Your task to perform on an android device: open app "Google Play services" (install if not already installed) Image 0: 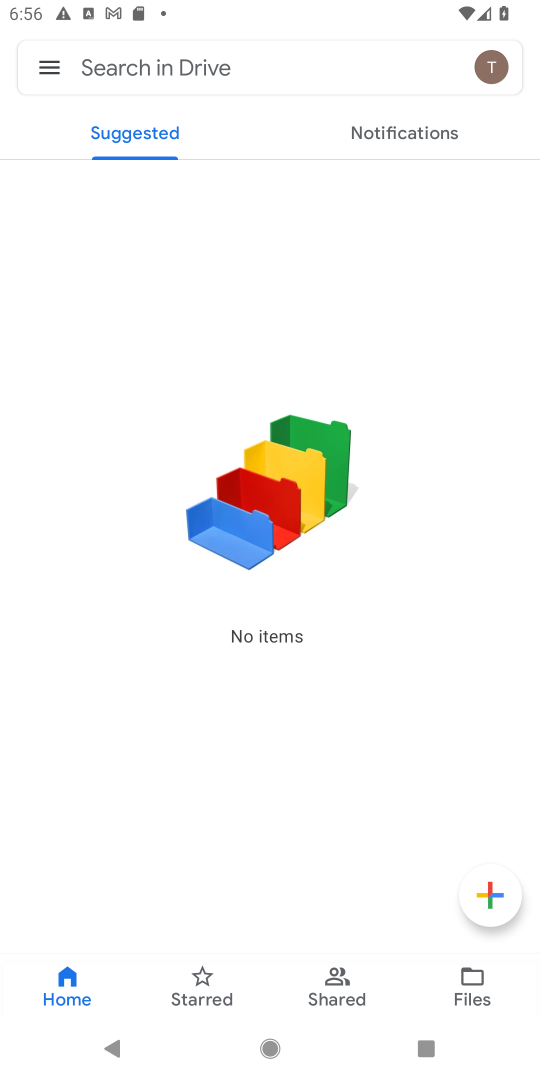
Step 0: press home button
Your task to perform on an android device: open app "Google Play services" (install if not already installed) Image 1: 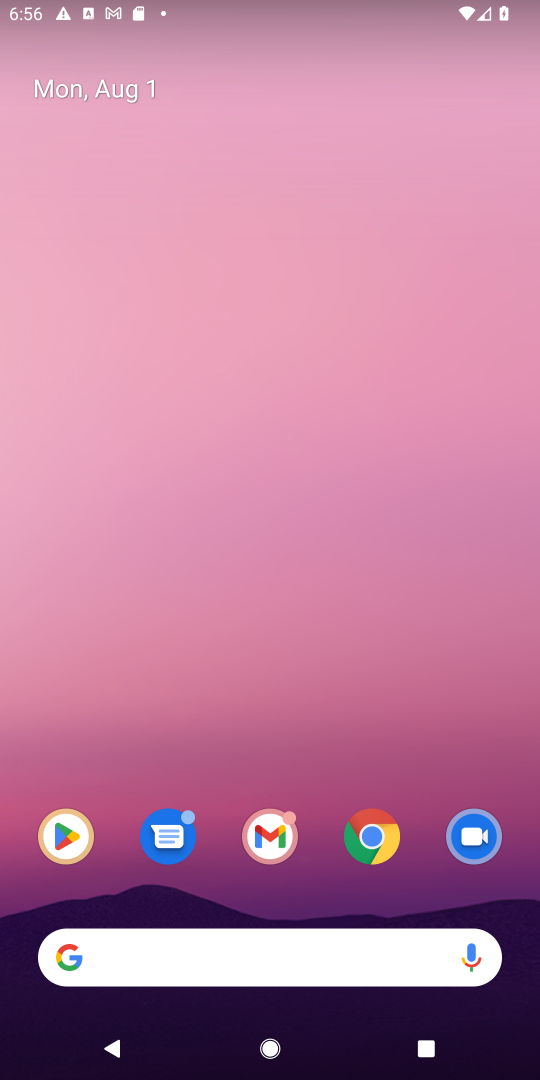
Step 1: click (55, 836)
Your task to perform on an android device: open app "Google Play services" (install if not already installed) Image 2: 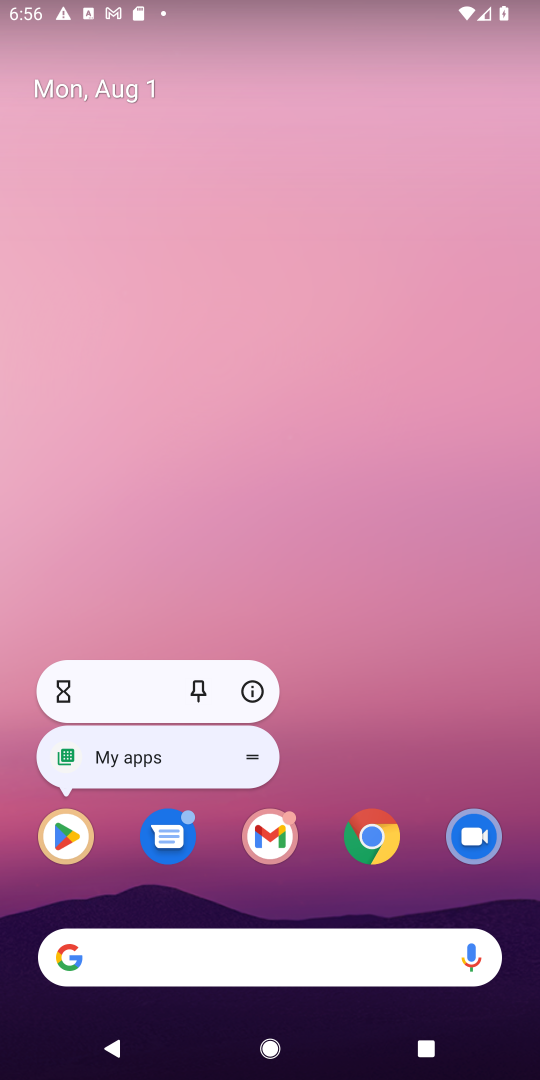
Step 2: click (54, 834)
Your task to perform on an android device: open app "Google Play services" (install if not already installed) Image 3: 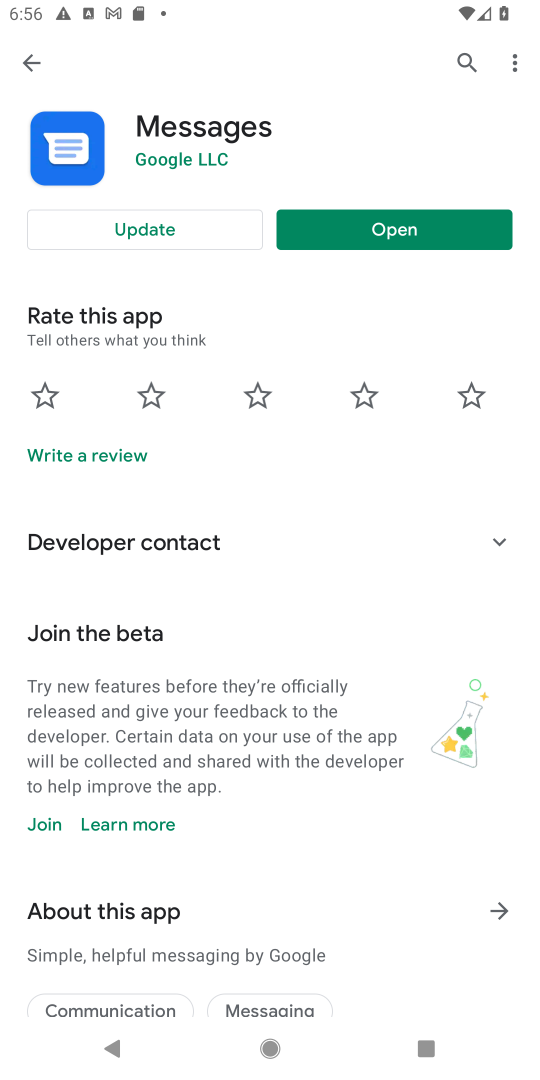
Step 3: click (461, 51)
Your task to perform on an android device: open app "Google Play services" (install if not already installed) Image 4: 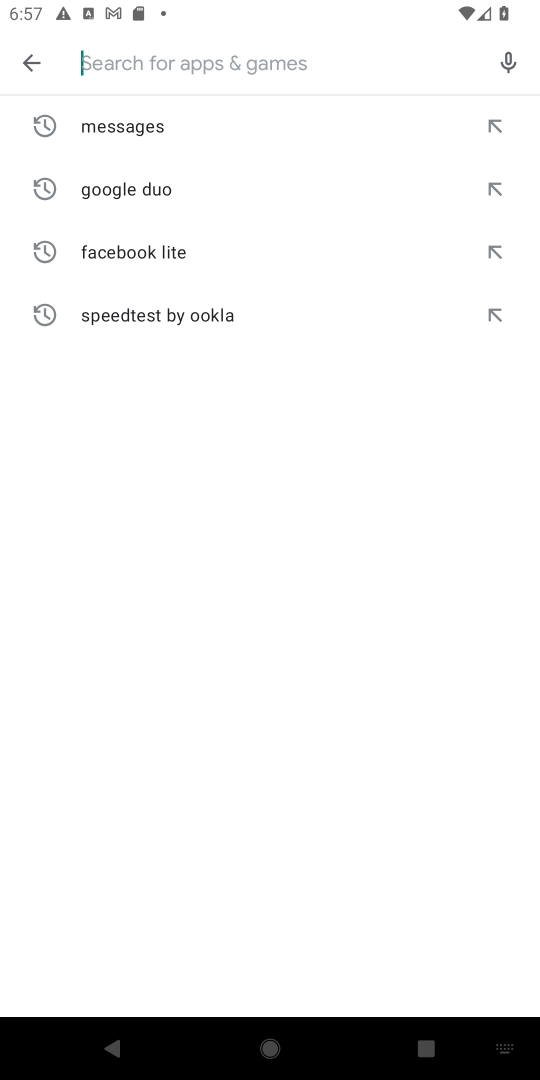
Step 4: type "Google Play services"
Your task to perform on an android device: open app "Google Play services" (install if not already installed) Image 5: 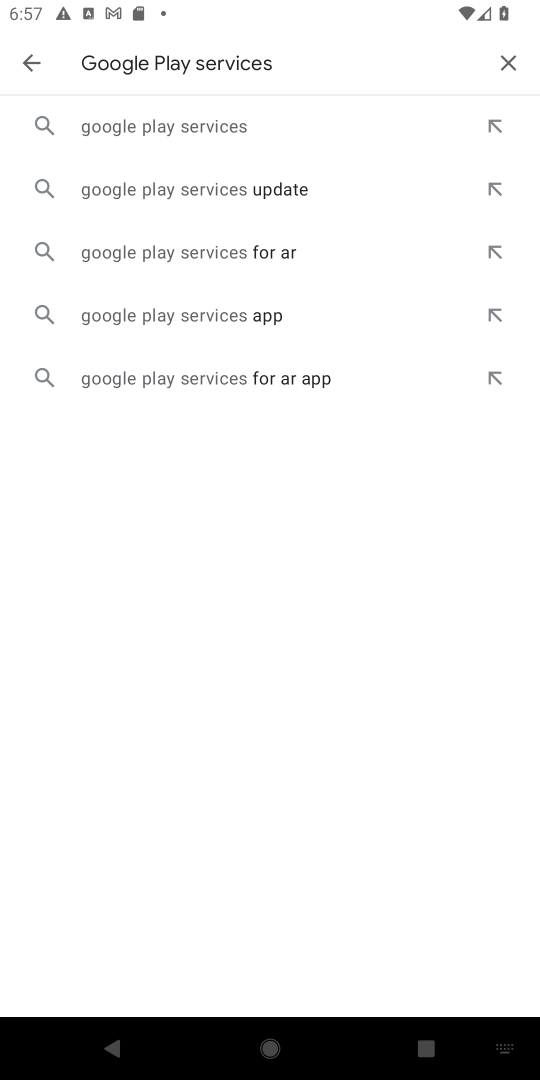
Step 5: click (223, 124)
Your task to perform on an android device: open app "Google Play services" (install if not already installed) Image 6: 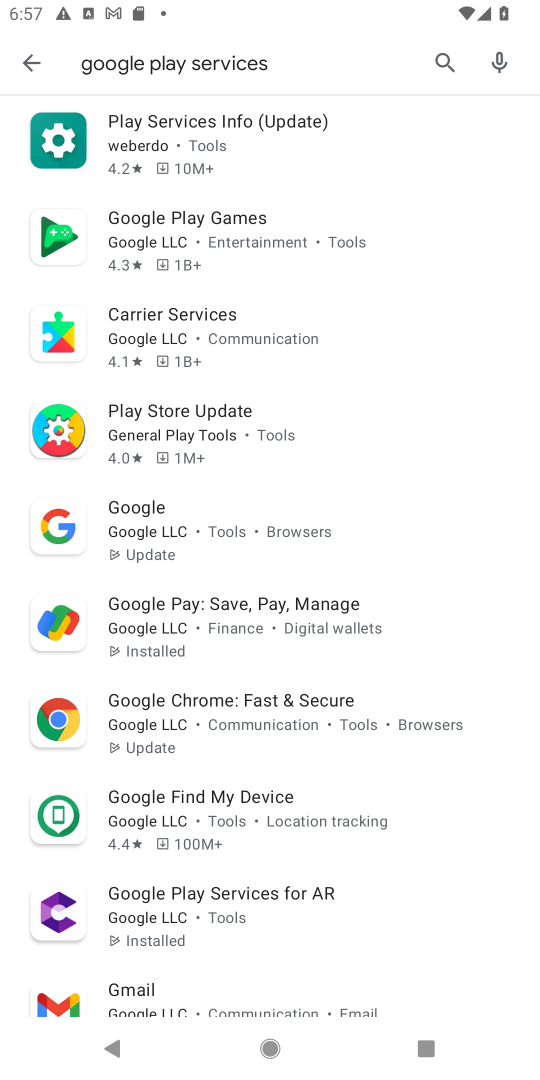
Step 6: click (224, 917)
Your task to perform on an android device: open app "Google Play services" (install if not already installed) Image 7: 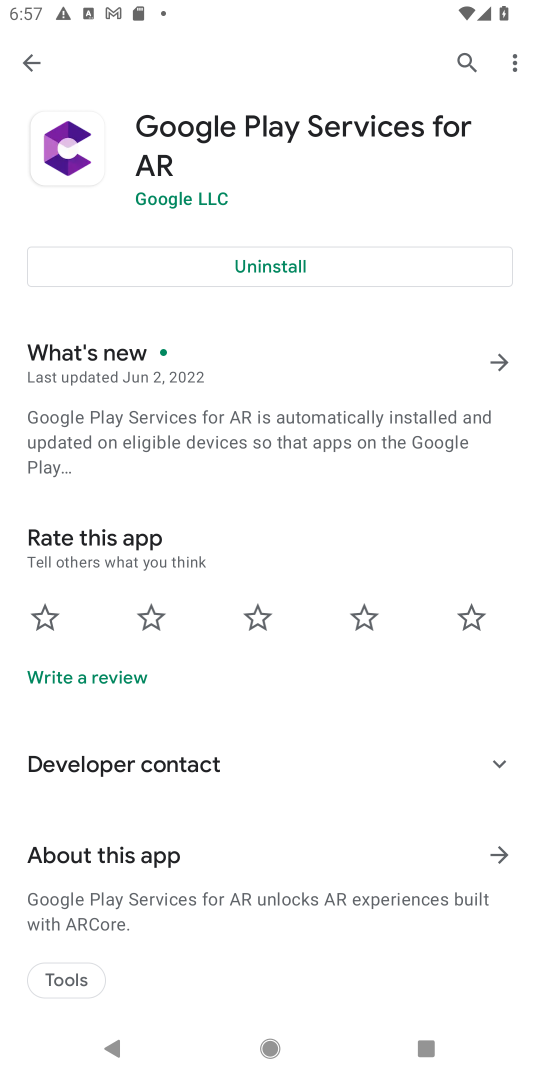
Step 7: task complete